Your task to perform on an android device: turn on improve location accuracy Image 0: 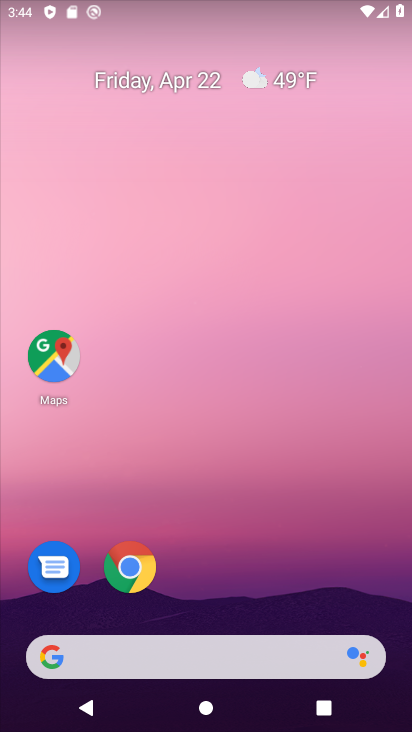
Step 0: drag from (227, 724) to (228, 218)
Your task to perform on an android device: turn on improve location accuracy Image 1: 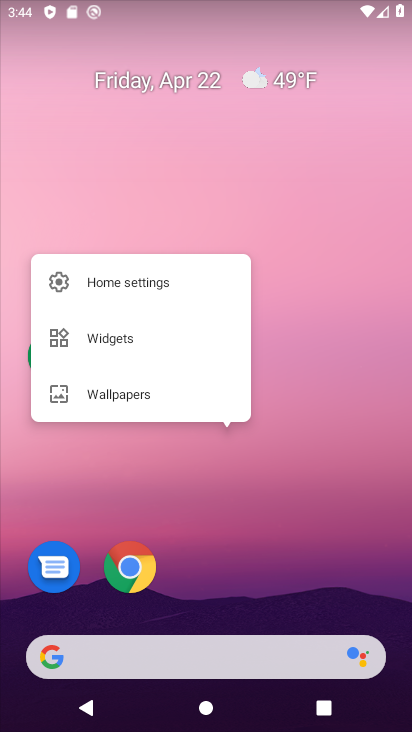
Step 1: click (231, 517)
Your task to perform on an android device: turn on improve location accuracy Image 2: 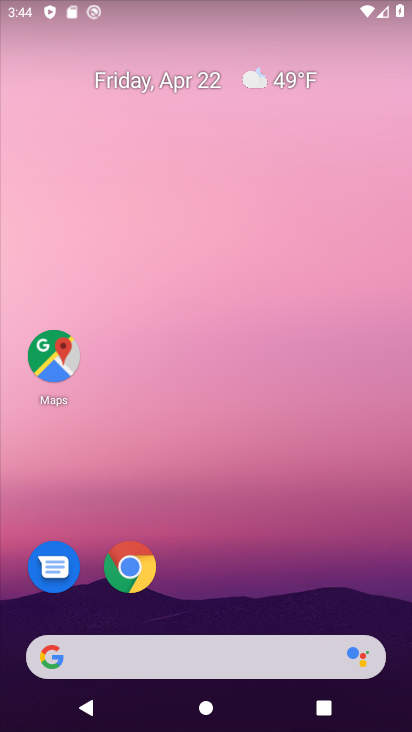
Step 2: drag from (220, 726) to (226, 206)
Your task to perform on an android device: turn on improve location accuracy Image 3: 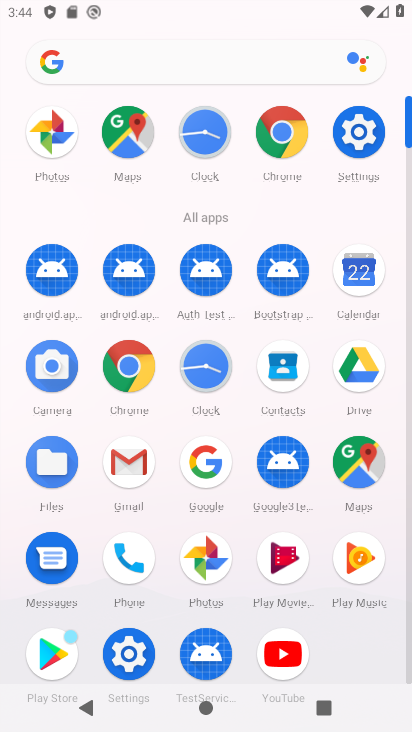
Step 3: click (357, 131)
Your task to perform on an android device: turn on improve location accuracy Image 4: 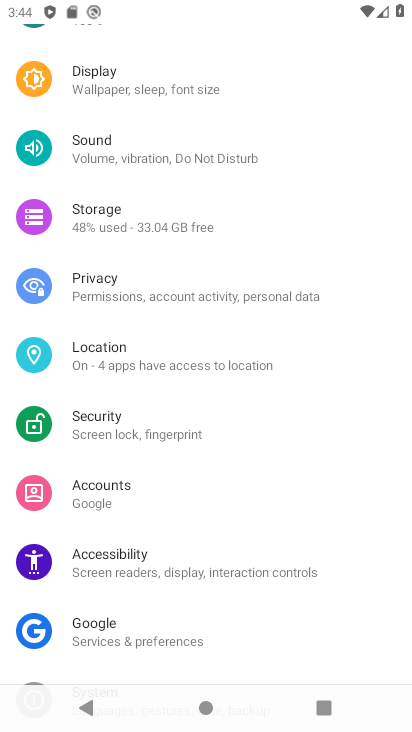
Step 4: click (108, 358)
Your task to perform on an android device: turn on improve location accuracy Image 5: 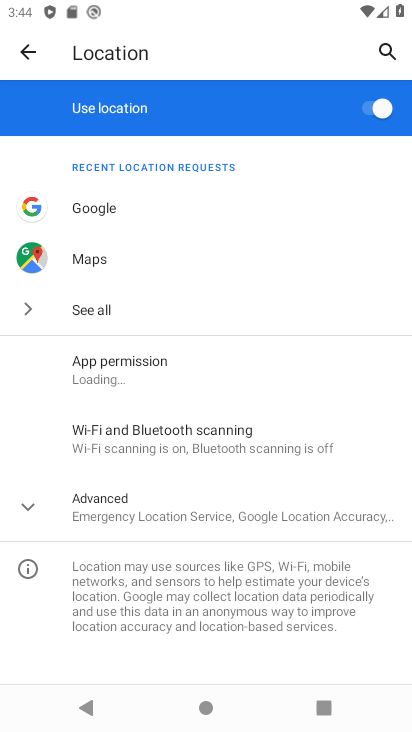
Step 5: click (126, 500)
Your task to perform on an android device: turn on improve location accuracy Image 6: 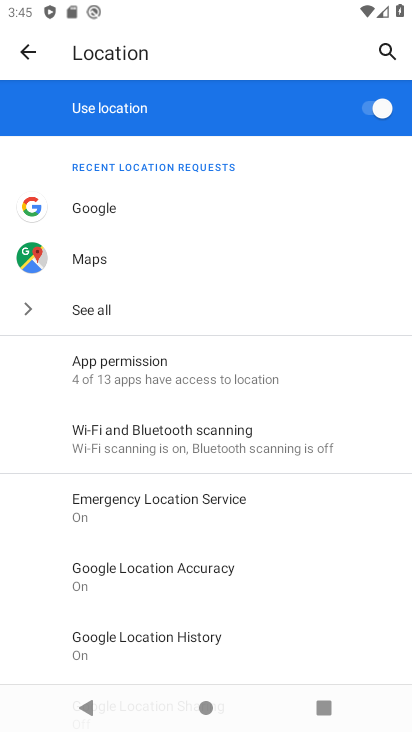
Step 6: click (141, 569)
Your task to perform on an android device: turn on improve location accuracy Image 7: 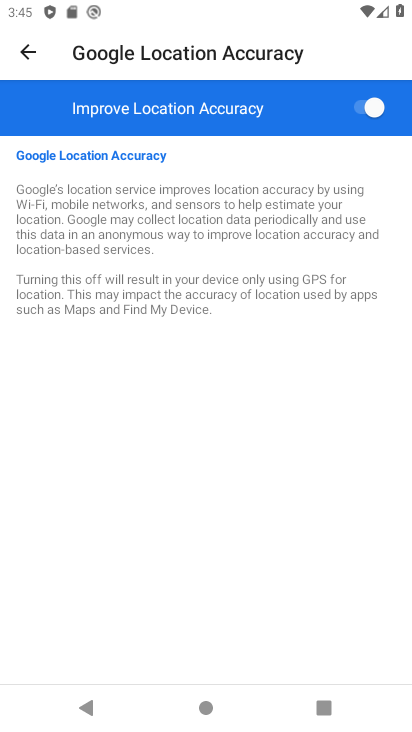
Step 7: task complete